Your task to perform on an android device: Open sound settings Image 0: 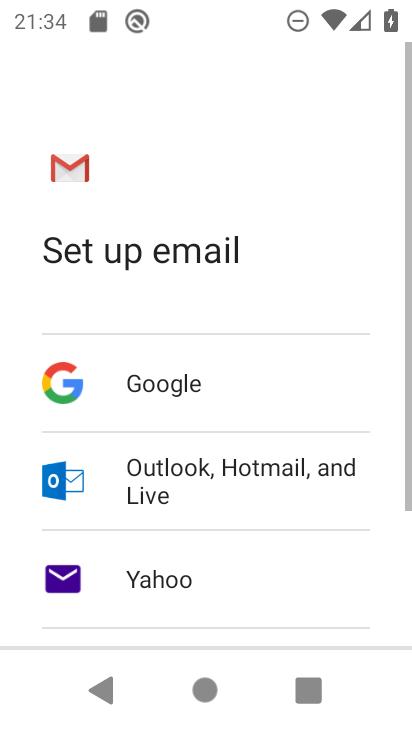
Step 0: press home button
Your task to perform on an android device: Open sound settings Image 1: 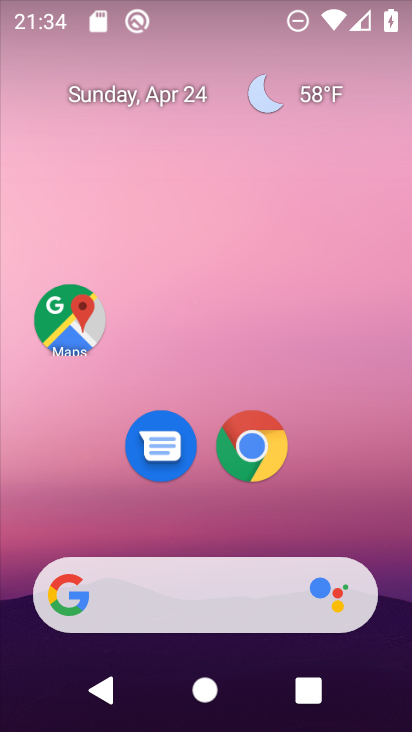
Step 1: drag from (147, 602) to (332, 69)
Your task to perform on an android device: Open sound settings Image 2: 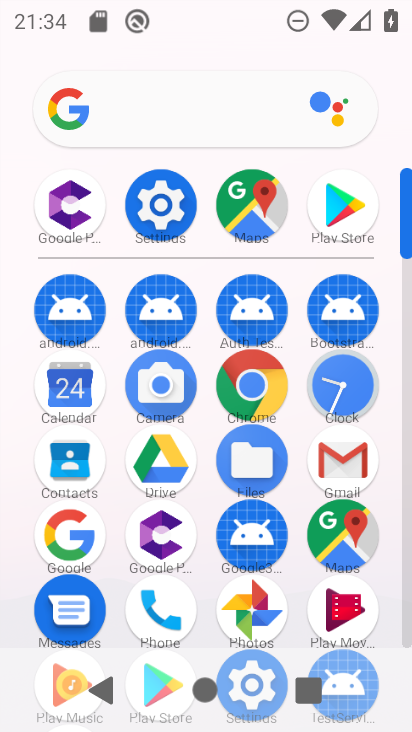
Step 2: click (163, 218)
Your task to perform on an android device: Open sound settings Image 3: 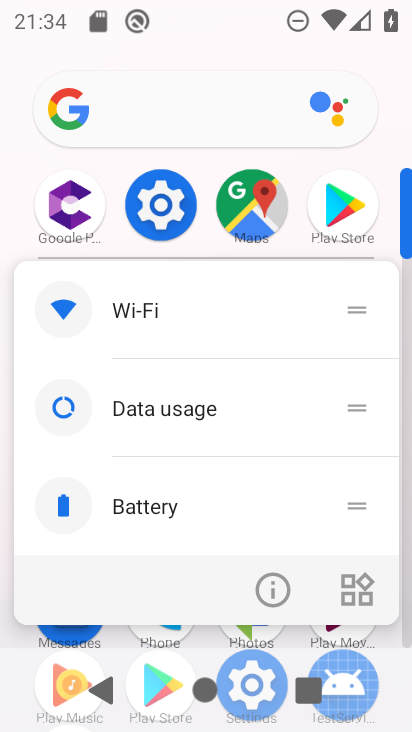
Step 3: click (159, 220)
Your task to perform on an android device: Open sound settings Image 4: 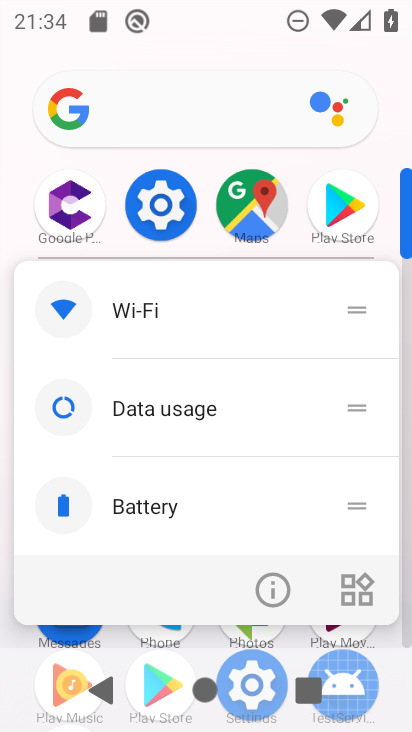
Step 4: click (168, 208)
Your task to perform on an android device: Open sound settings Image 5: 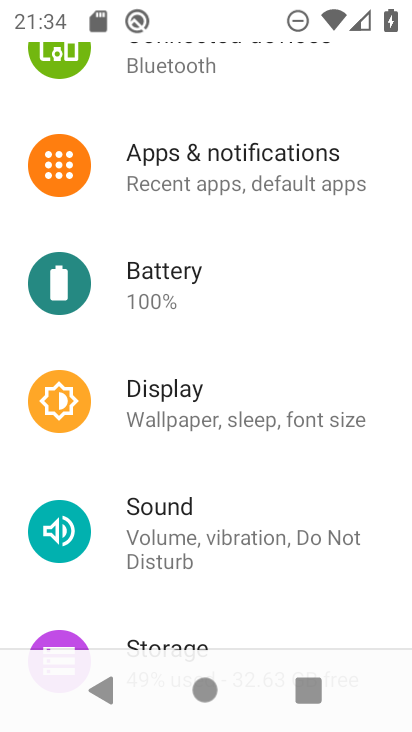
Step 5: click (174, 508)
Your task to perform on an android device: Open sound settings Image 6: 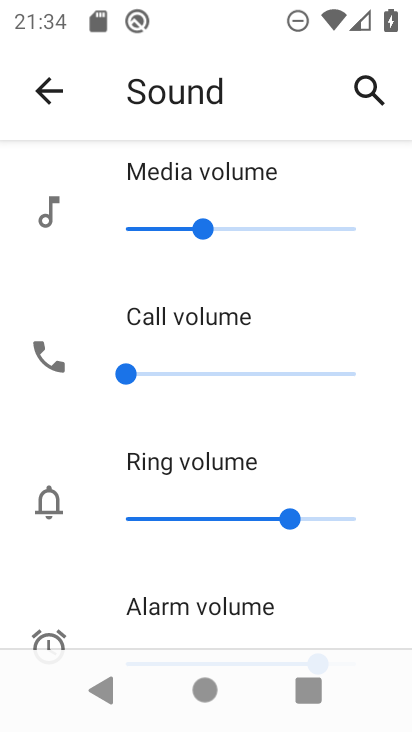
Step 6: task complete